Your task to perform on an android device: Is it going to rain tomorrow? Image 0: 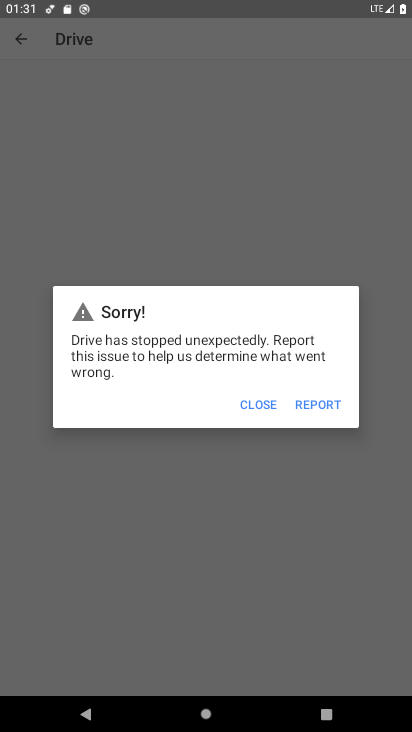
Step 0: click (258, 396)
Your task to perform on an android device: Is it going to rain tomorrow? Image 1: 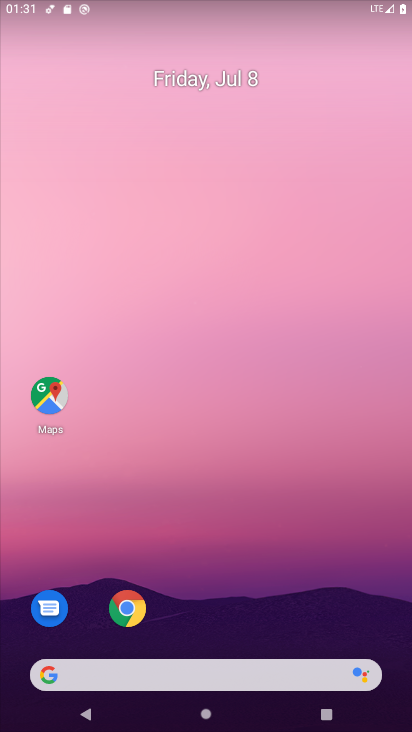
Step 1: drag from (255, 694) to (260, 347)
Your task to perform on an android device: Is it going to rain tomorrow? Image 2: 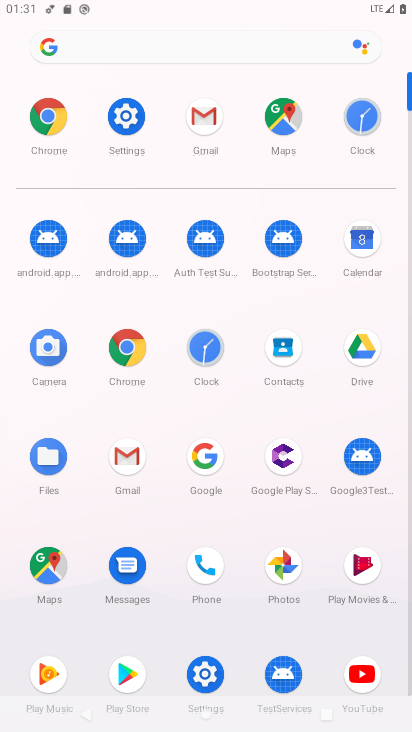
Step 2: click (51, 113)
Your task to perform on an android device: Is it going to rain tomorrow? Image 3: 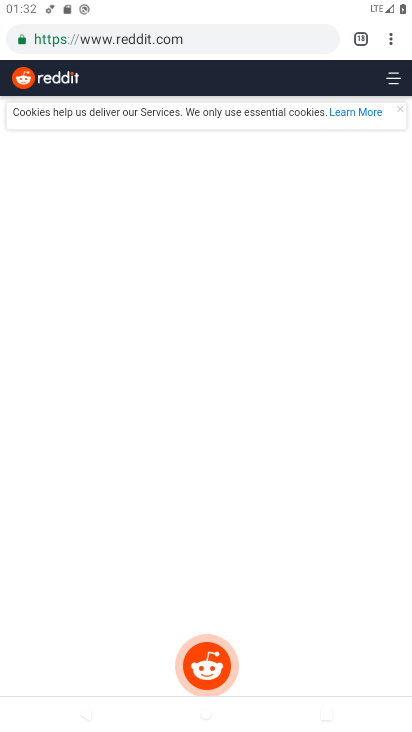
Step 3: click (380, 41)
Your task to perform on an android device: Is it going to rain tomorrow? Image 4: 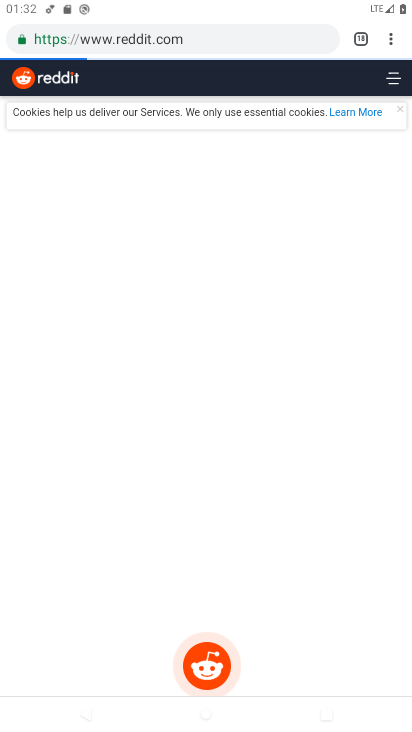
Step 4: click (384, 41)
Your task to perform on an android device: Is it going to rain tomorrow? Image 5: 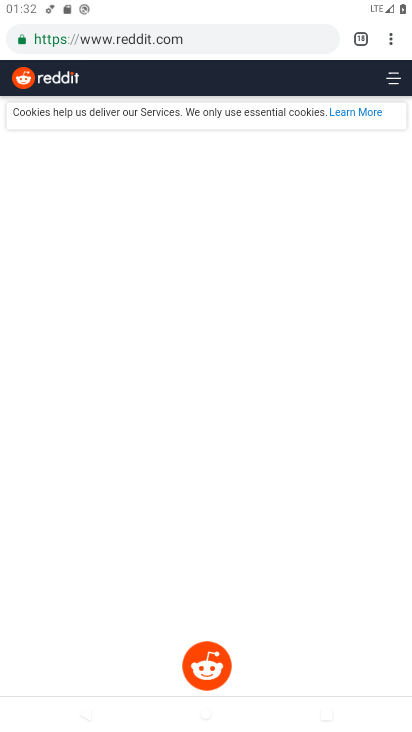
Step 5: click (392, 32)
Your task to perform on an android device: Is it going to rain tomorrow? Image 6: 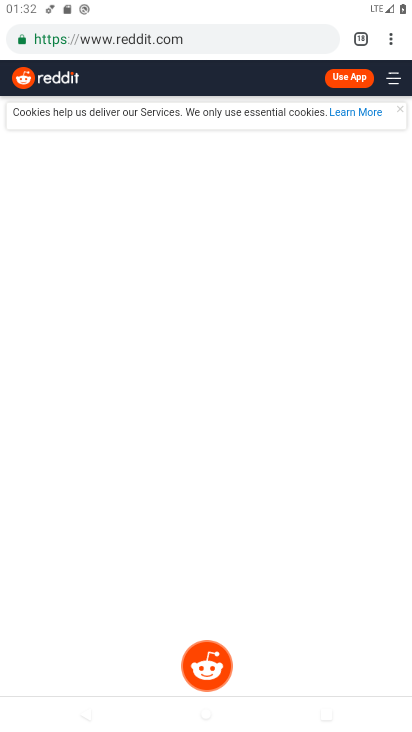
Step 6: click (390, 38)
Your task to perform on an android device: Is it going to rain tomorrow? Image 7: 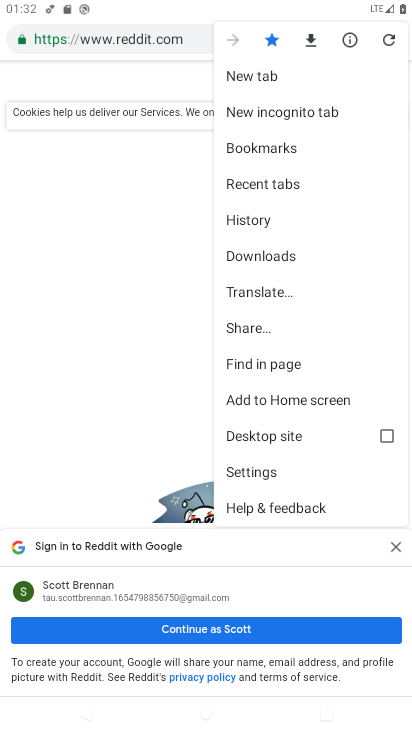
Step 7: click (268, 72)
Your task to perform on an android device: Is it going to rain tomorrow? Image 8: 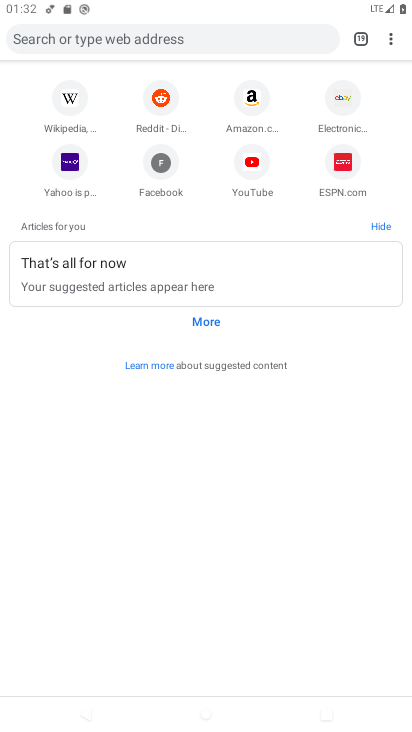
Step 8: click (172, 32)
Your task to perform on an android device: Is it going to rain tomorrow? Image 9: 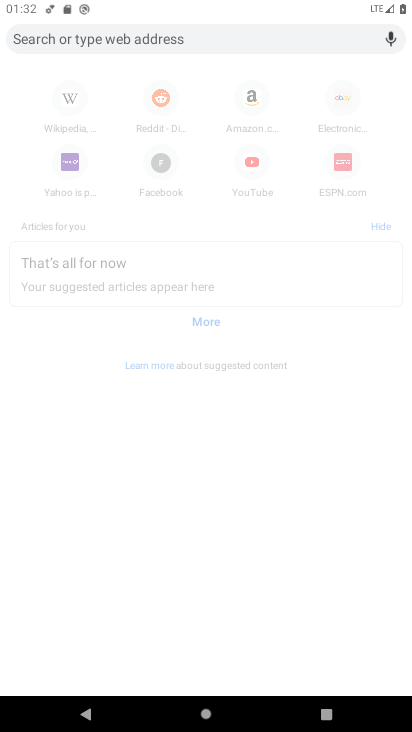
Step 9: type "Is it going to rain tomorrow "
Your task to perform on an android device: Is it going to rain tomorrow? Image 10: 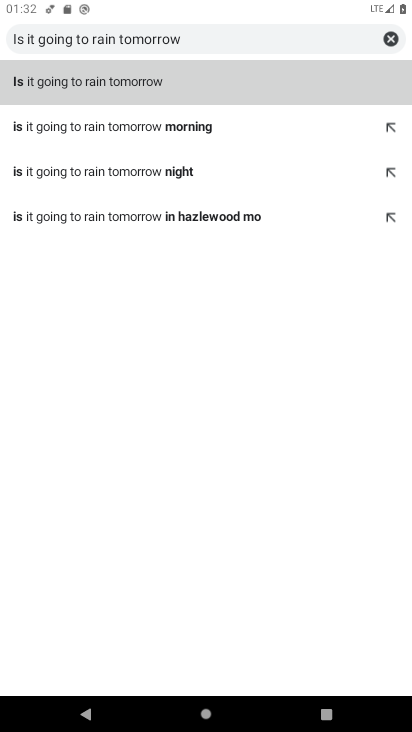
Step 10: click (199, 72)
Your task to perform on an android device: Is it going to rain tomorrow? Image 11: 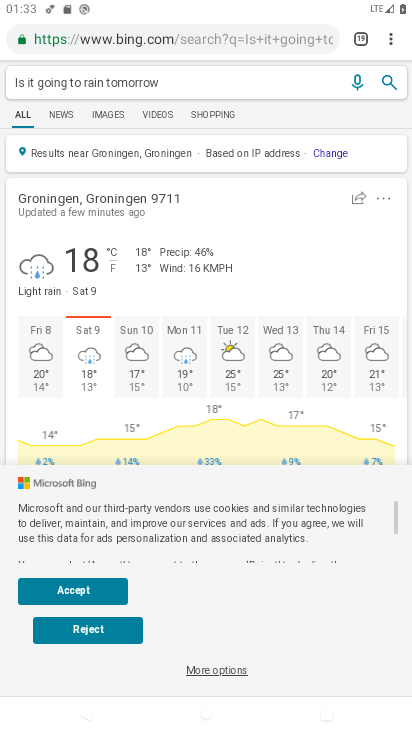
Step 11: task complete